Your task to perform on an android device: change text size in settings app Image 0: 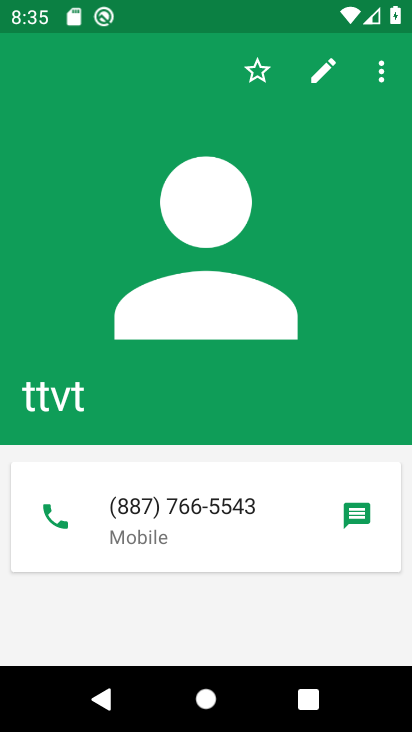
Step 0: press home button
Your task to perform on an android device: change text size in settings app Image 1: 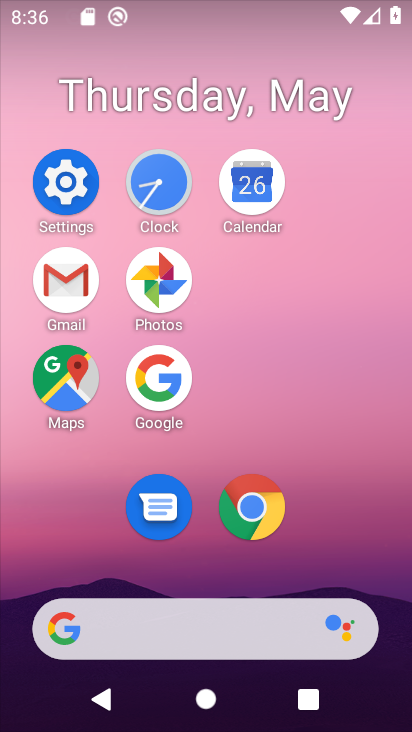
Step 1: click (78, 170)
Your task to perform on an android device: change text size in settings app Image 2: 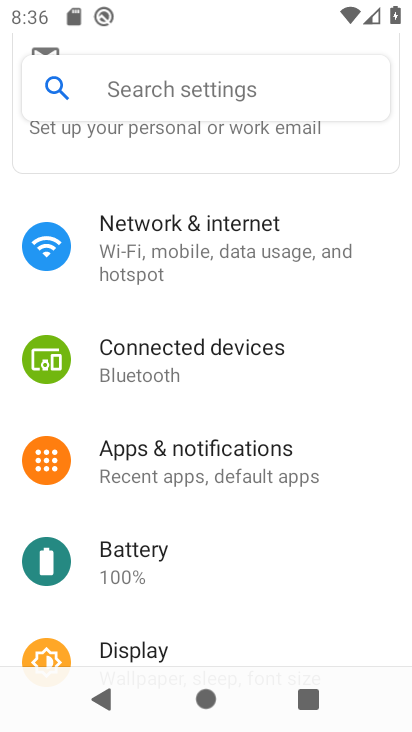
Step 2: click (168, 646)
Your task to perform on an android device: change text size in settings app Image 3: 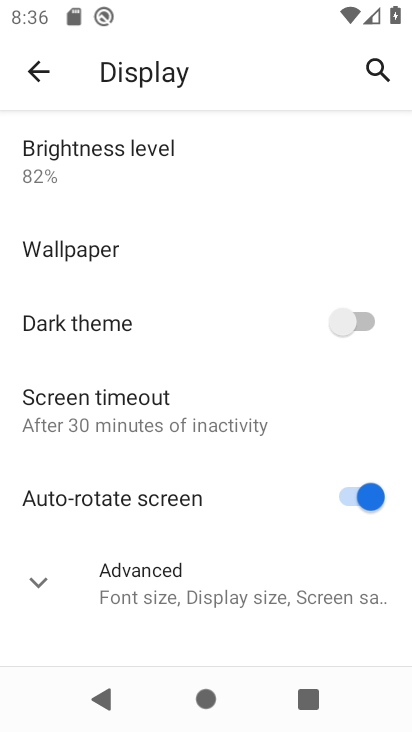
Step 3: click (219, 588)
Your task to perform on an android device: change text size in settings app Image 4: 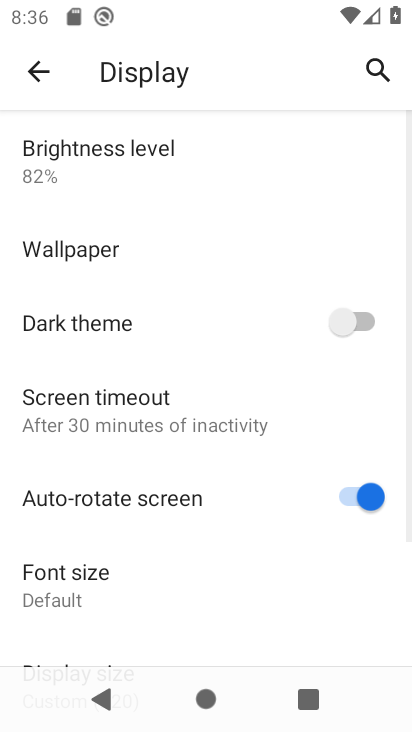
Step 4: click (219, 588)
Your task to perform on an android device: change text size in settings app Image 5: 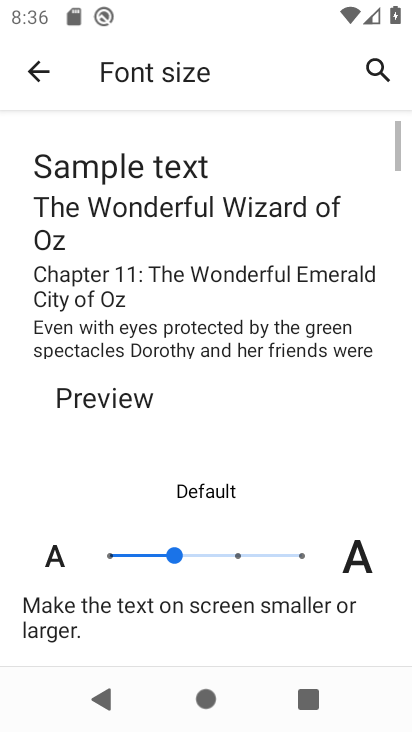
Step 5: click (245, 557)
Your task to perform on an android device: change text size in settings app Image 6: 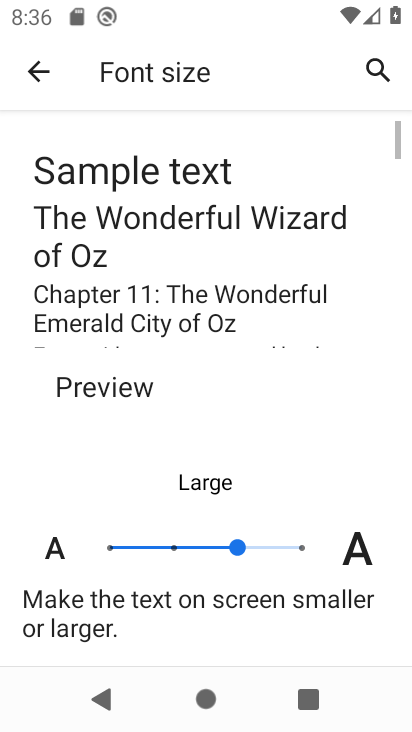
Step 6: task complete